Your task to perform on an android device: Go to display settings Image 0: 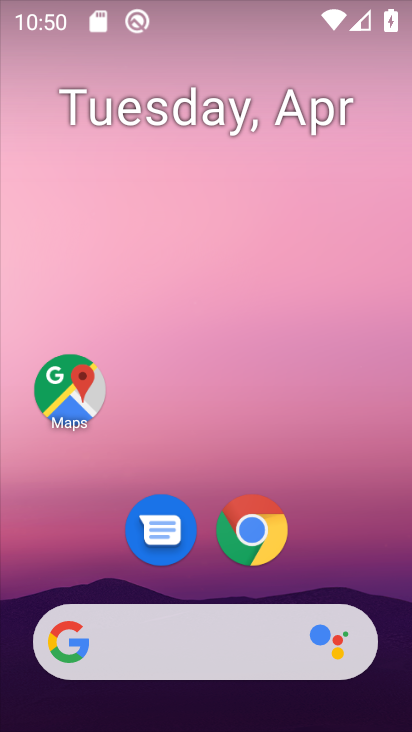
Step 0: drag from (184, 641) to (297, 220)
Your task to perform on an android device: Go to display settings Image 1: 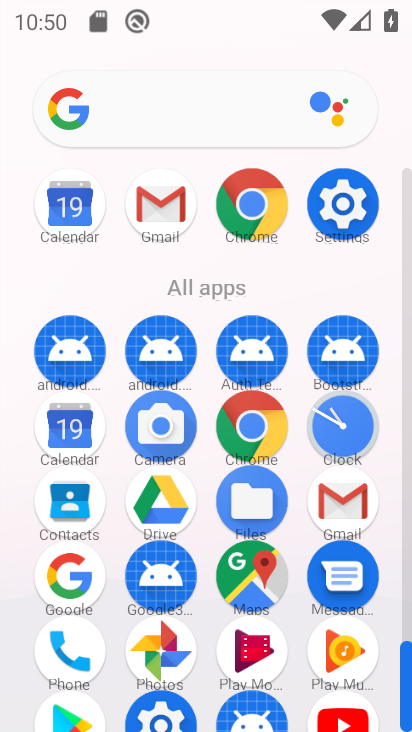
Step 1: click (337, 209)
Your task to perform on an android device: Go to display settings Image 2: 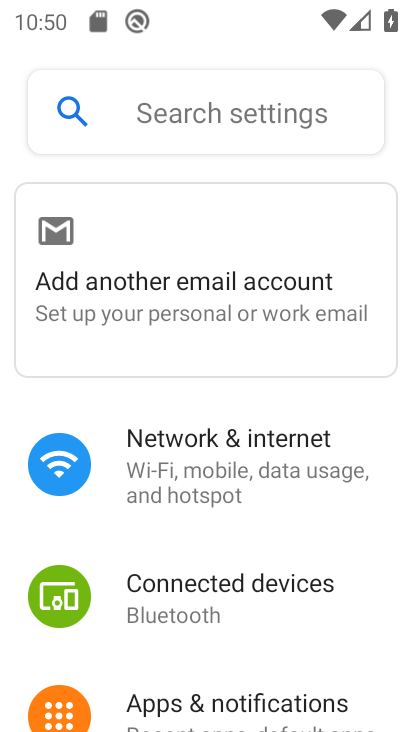
Step 2: drag from (240, 589) to (360, 198)
Your task to perform on an android device: Go to display settings Image 3: 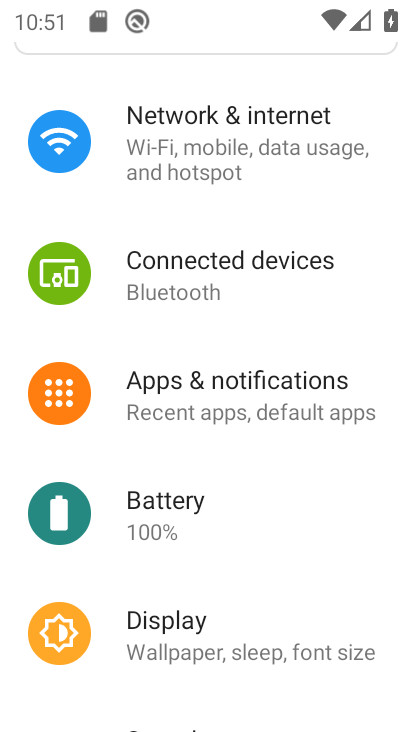
Step 3: click (181, 617)
Your task to perform on an android device: Go to display settings Image 4: 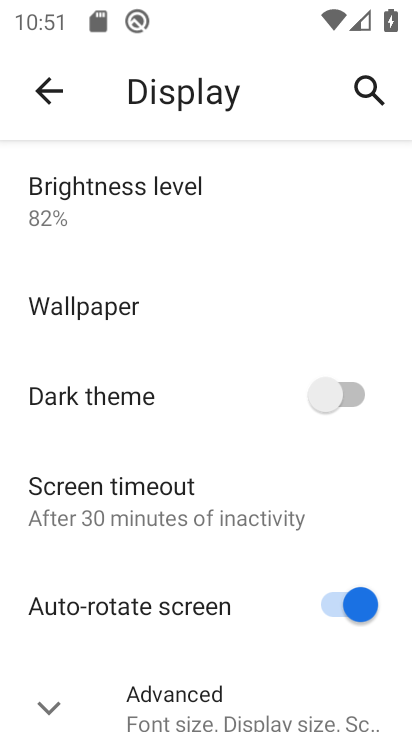
Step 4: task complete